Your task to perform on an android device: turn on notifications settings in the gmail app Image 0: 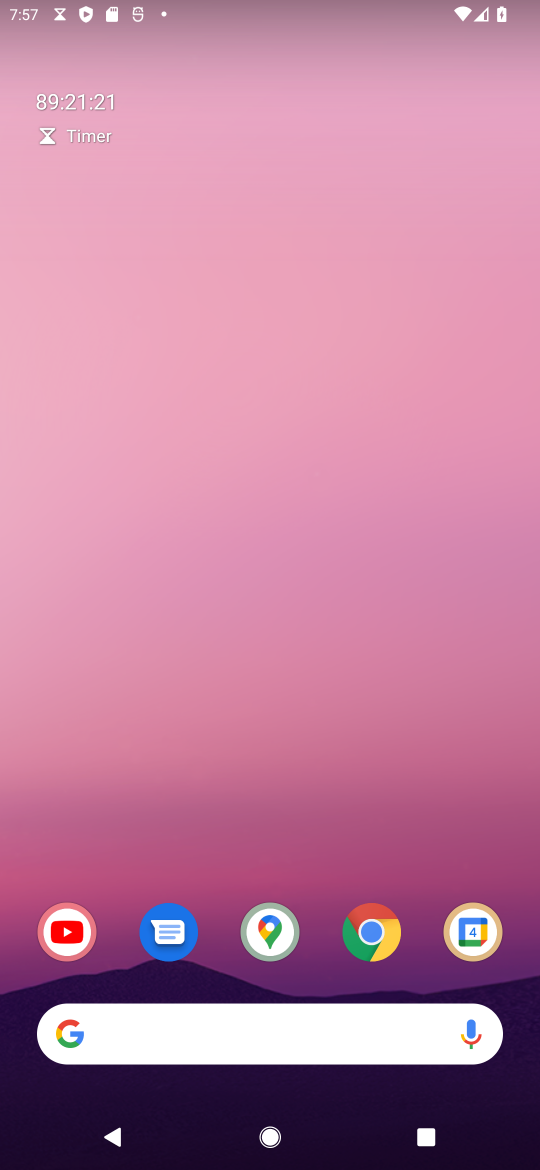
Step 0: drag from (257, 848) to (230, 45)
Your task to perform on an android device: turn on notifications settings in the gmail app Image 1: 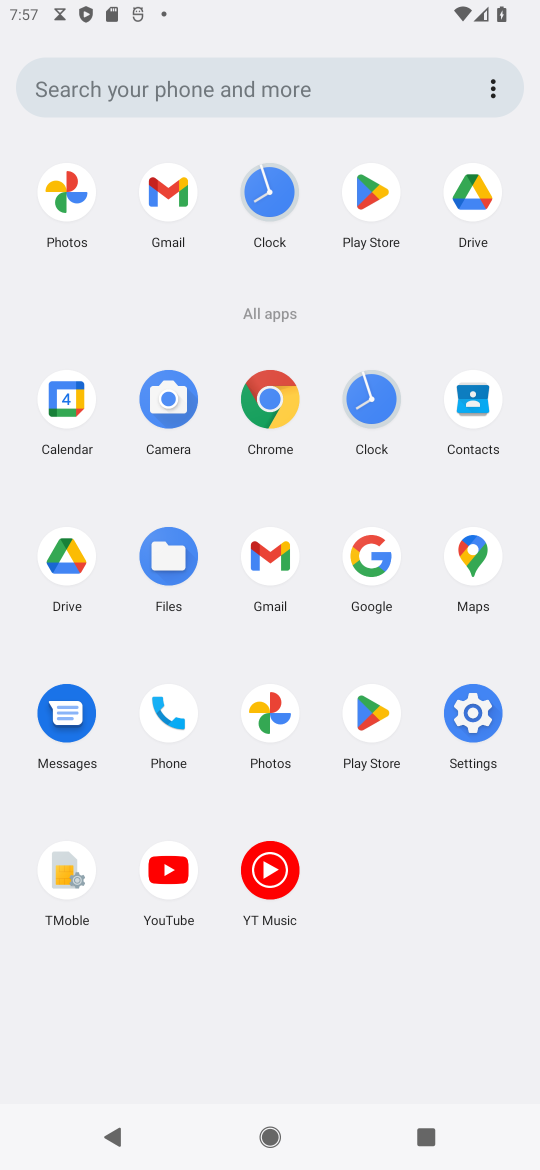
Step 1: click (175, 197)
Your task to perform on an android device: turn on notifications settings in the gmail app Image 2: 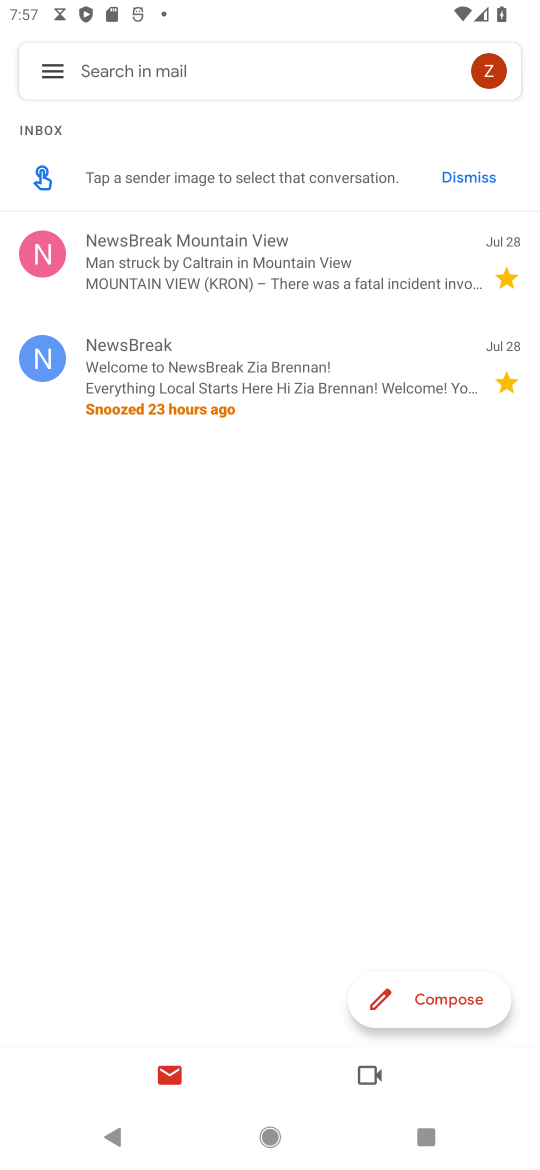
Step 2: click (47, 82)
Your task to perform on an android device: turn on notifications settings in the gmail app Image 3: 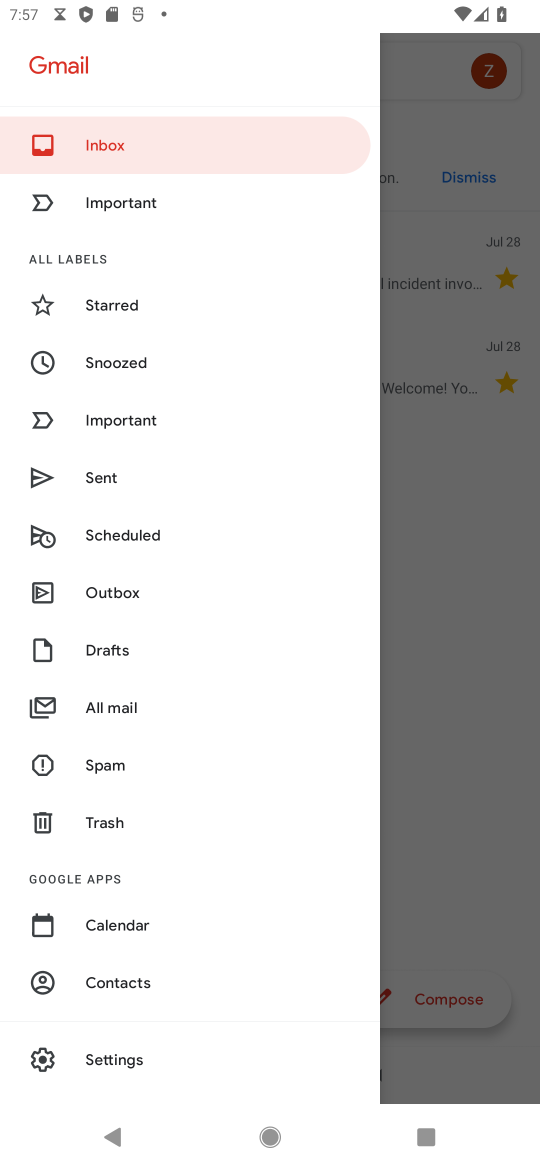
Step 3: click (129, 1054)
Your task to perform on an android device: turn on notifications settings in the gmail app Image 4: 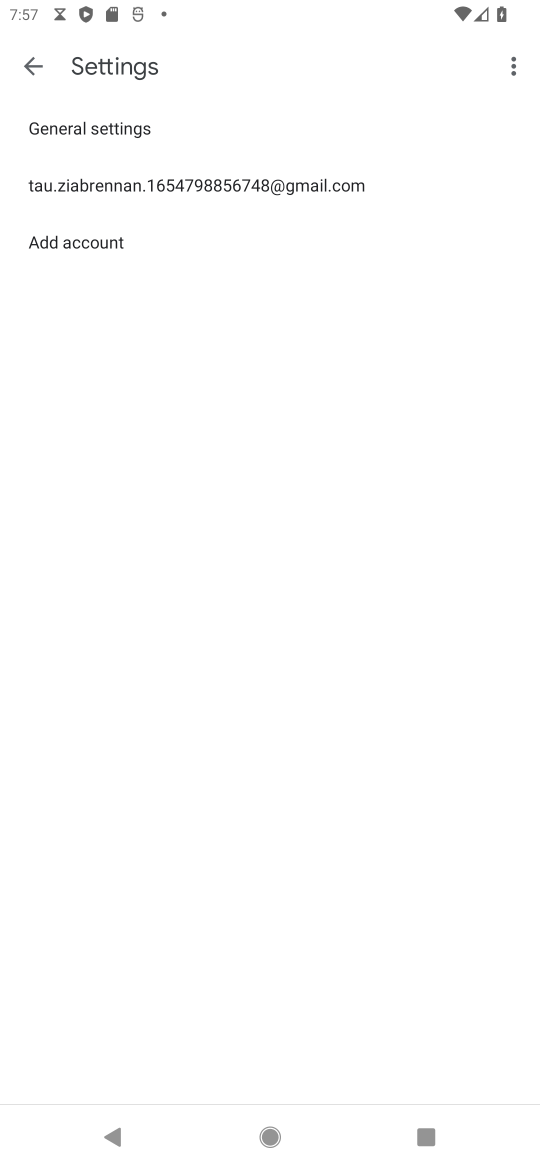
Step 4: click (241, 199)
Your task to perform on an android device: turn on notifications settings in the gmail app Image 5: 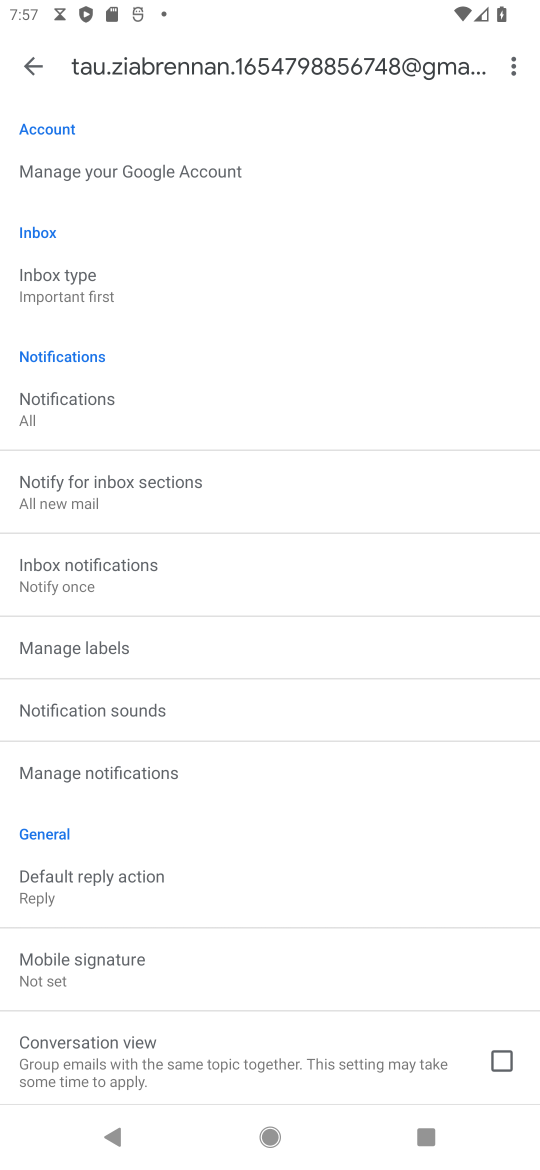
Step 5: click (141, 761)
Your task to perform on an android device: turn on notifications settings in the gmail app Image 6: 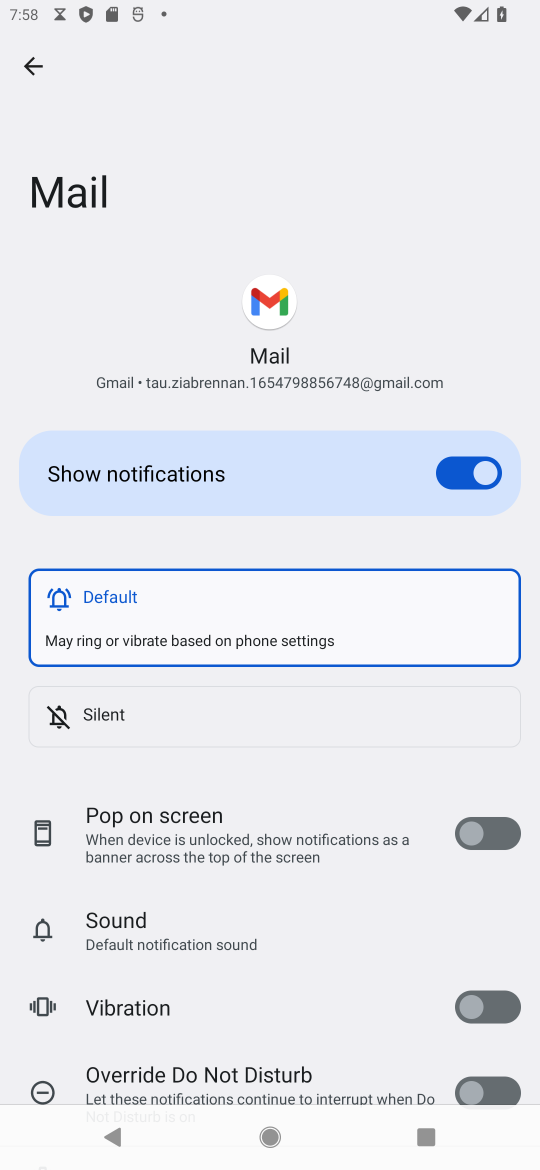
Step 6: task complete